Your task to perform on an android device: allow cookies in the chrome app Image 0: 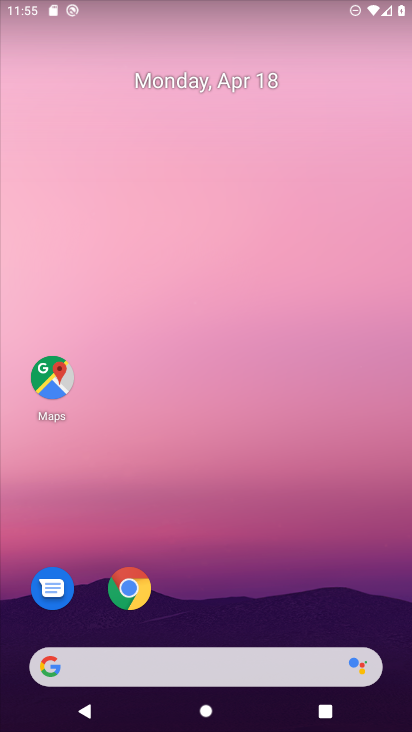
Step 0: drag from (218, 533) to (146, 49)
Your task to perform on an android device: allow cookies in the chrome app Image 1: 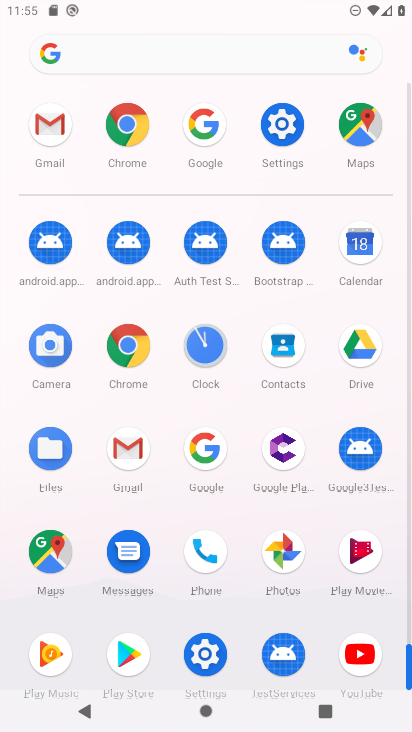
Step 1: click (128, 121)
Your task to perform on an android device: allow cookies in the chrome app Image 2: 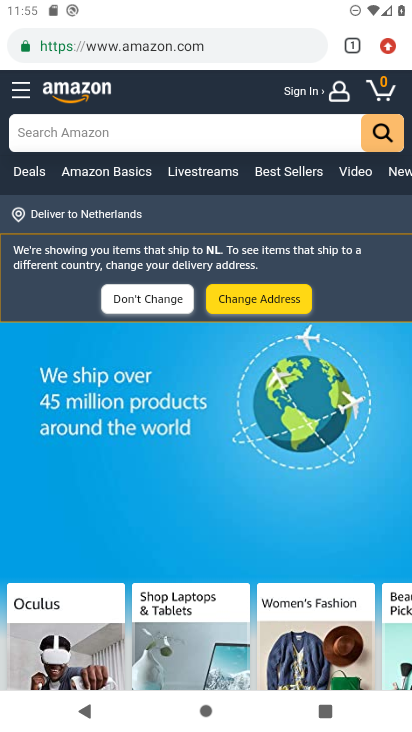
Step 2: drag from (386, 44) to (246, 603)
Your task to perform on an android device: allow cookies in the chrome app Image 3: 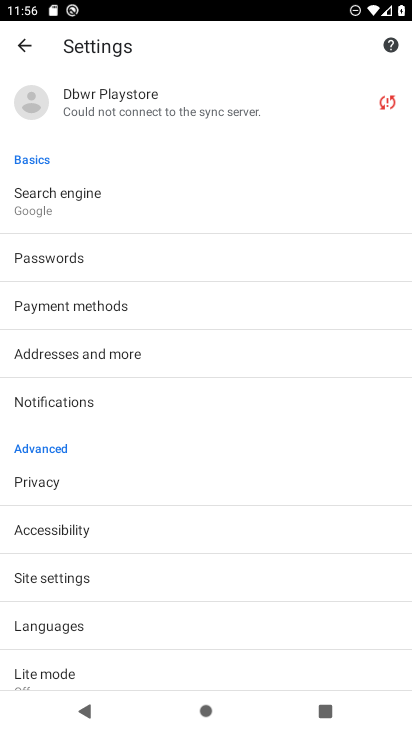
Step 3: click (86, 581)
Your task to perform on an android device: allow cookies in the chrome app Image 4: 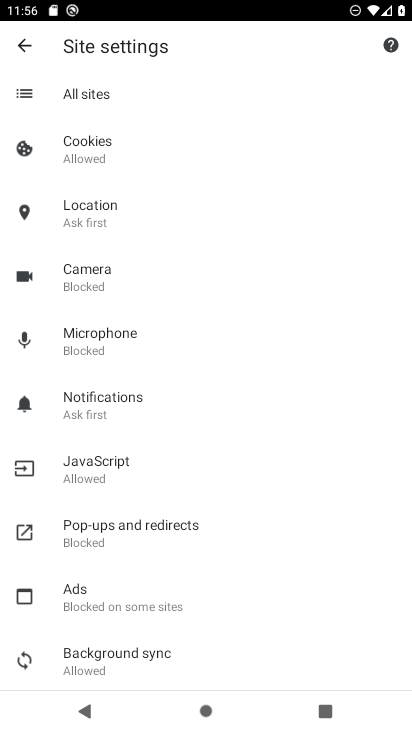
Step 4: click (117, 160)
Your task to perform on an android device: allow cookies in the chrome app Image 5: 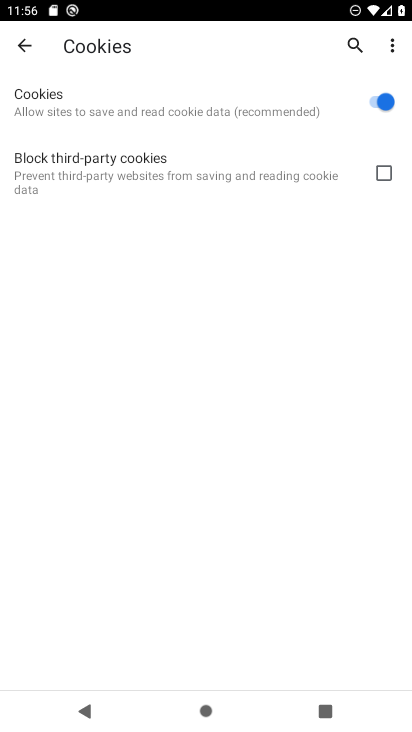
Step 5: task complete